Your task to perform on an android device: Go to Reddit.com Image 0: 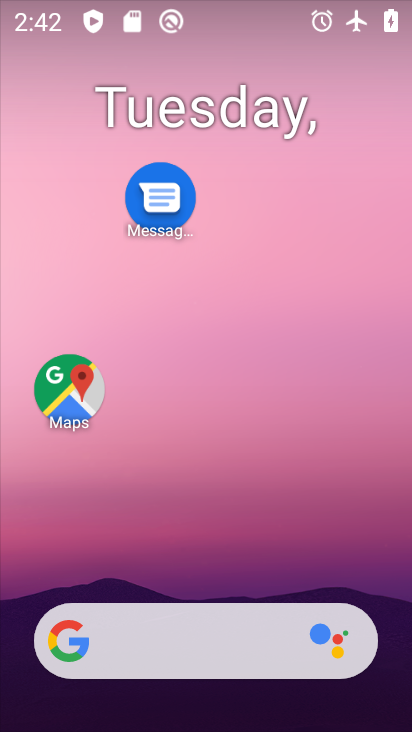
Step 0: drag from (188, 565) to (246, 196)
Your task to perform on an android device: Go to Reddit.com Image 1: 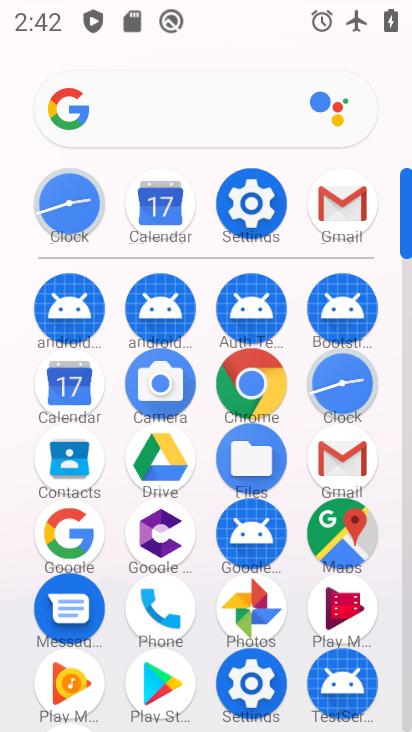
Step 1: click (258, 395)
Your task to perform on an android device: Go to Reddit.com Image 2: 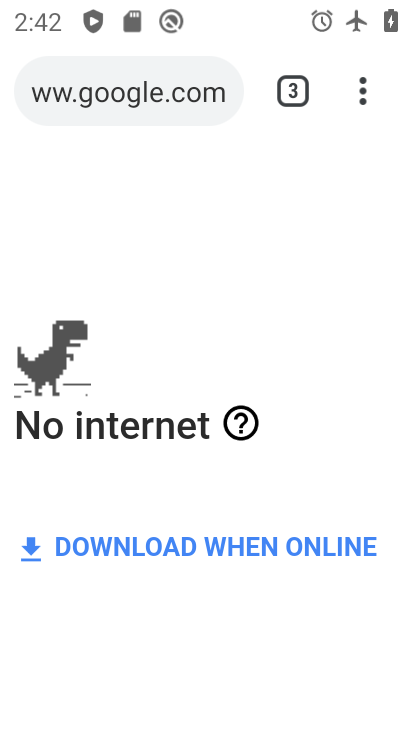
Step 2: click (277, 88)
Your task to perform on an android device: Go to Reddit.com Image 3: 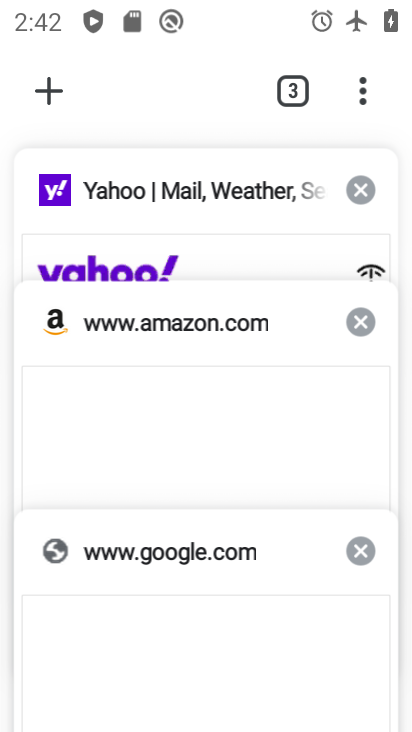
Step 3: click (48, 80)
Your task to perform on an android device: Go to Reddit.com Image 4: 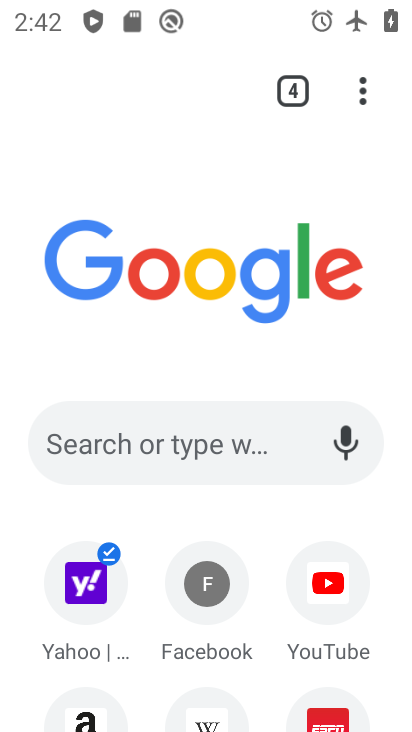
Step 4: click (176, 440)
Your task to perform on an android device: Go to Reddit.com Image 5: 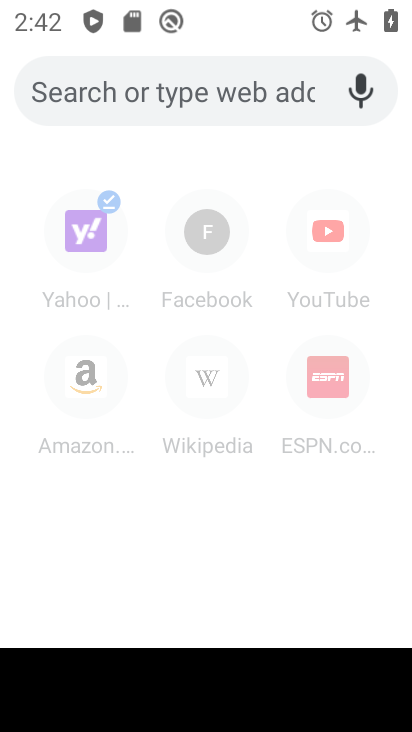
Step 5: type "Reddit.com"
Your task to perform on an android device: Go to Reddit.com Image 6: 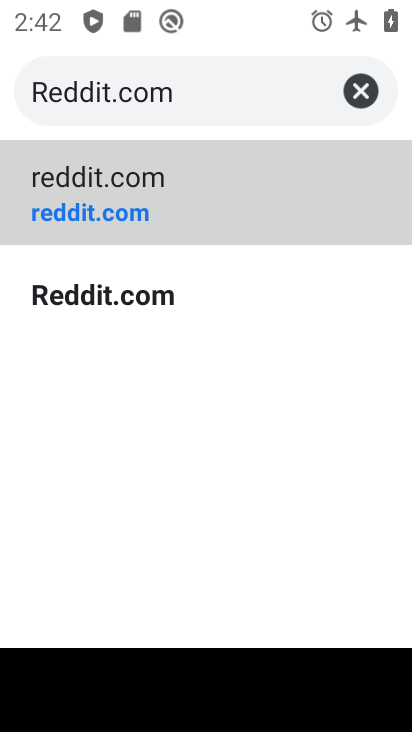
Step 6: click (203, 236)
Your task to perform on an android device: Go to Reddit.com Image 7: 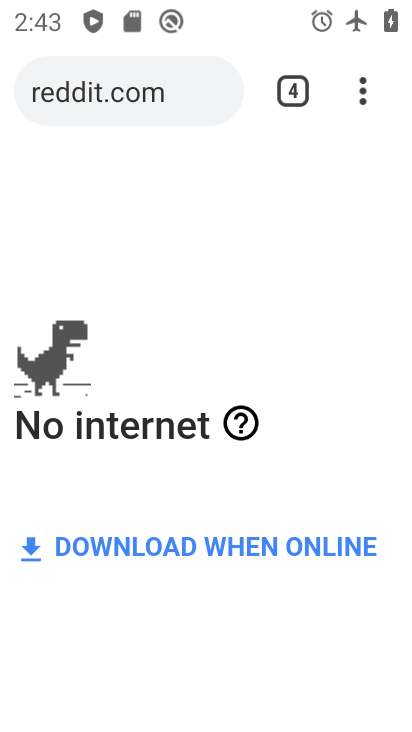
Step 7: task complete